Your task to perform on an android device: Go to calendar. Show me events next week Image 0: 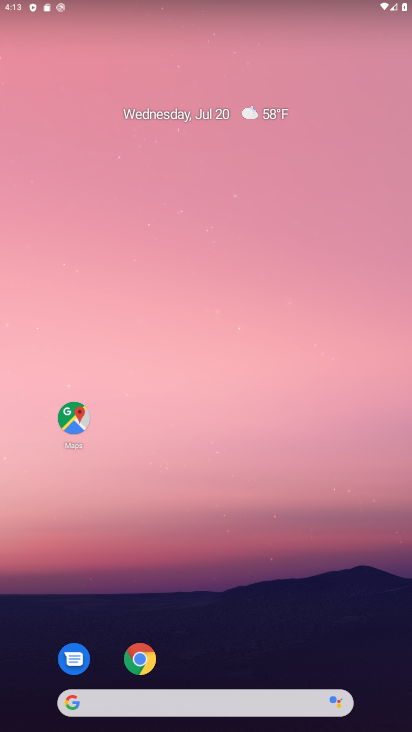
Step 0: drag from (272, 723) to (334, 190)
Your task to perform on an android device: Go to calendar. Show me events next week Image 1: 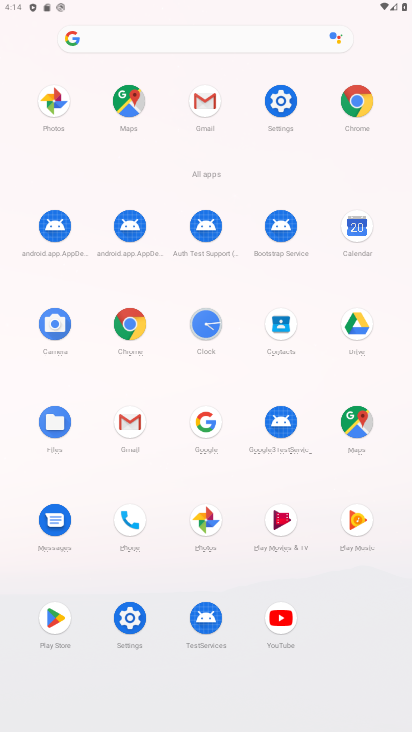
Step 1: click (366, 226)
Your task to perform on an android device: Go to calendar. Show me events next week Image 2: 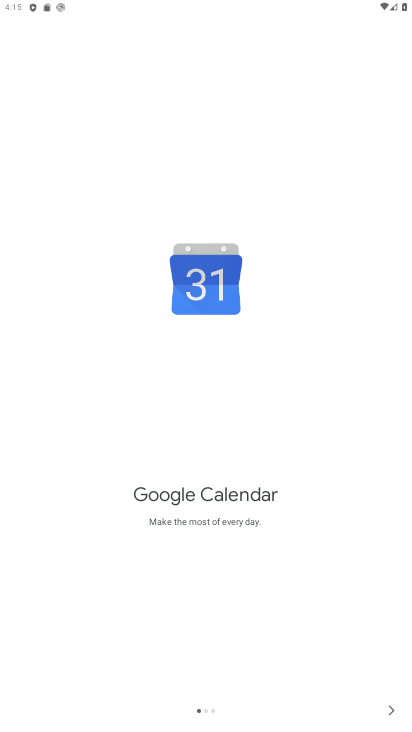
Step 2: click (395, 709)
Your task to perform on an android device: Go to calendar. Show me events next week Image 3: 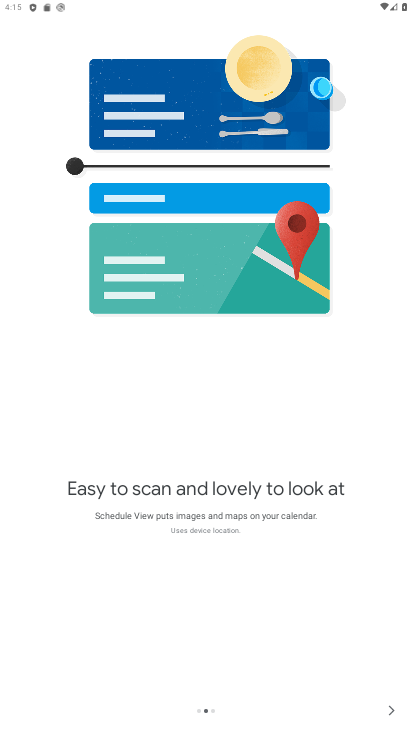
Step 3: click (395, 709)
Your task to perform on an android device: Go to calendar. Show me events next week Image 4: 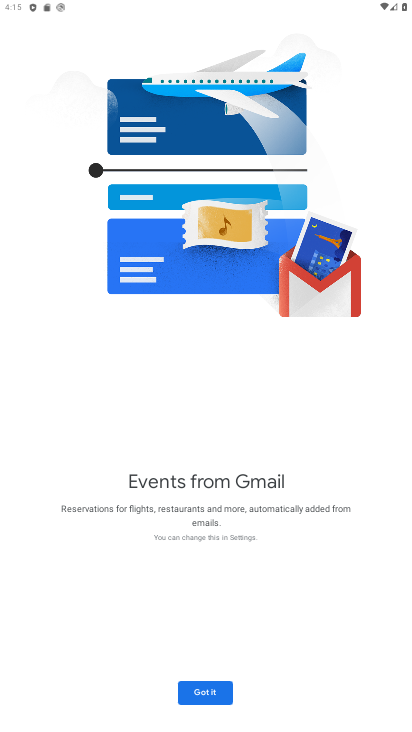
Step 4: click (219, 692)
Your task to perform on an android device: Go to calendar. Show me events next week Image 5: 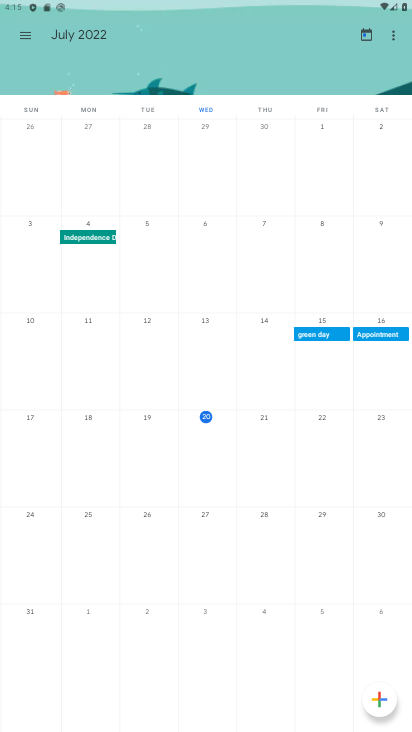
Step 5: drag from (314, 252) to (8, 287)
Your task to perform on an android device: Go to calendar. Show me events next week Image 6: 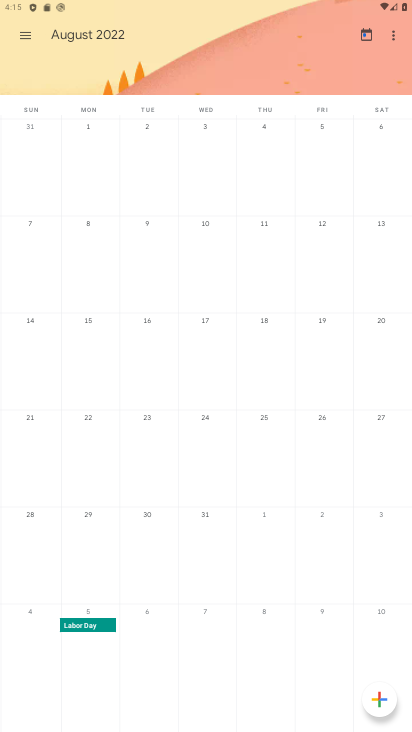
Step 6: drag from (57, 284) to (405, 436)
Your task to perform on an android device: Go to calendar. Show me events next week Image 7: 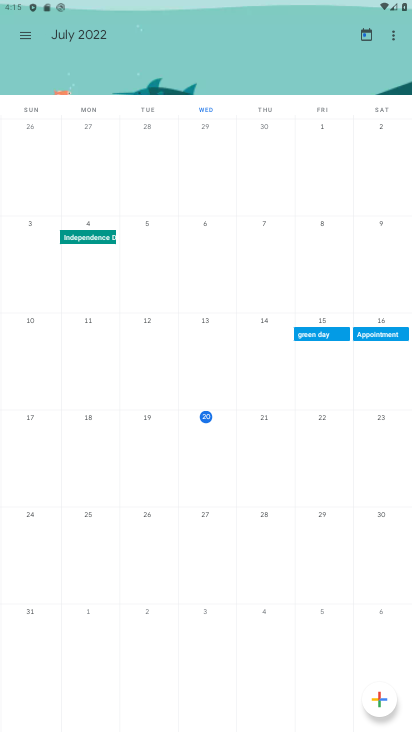
Step 7: click (198, 522)
Your task to perform on an android device: Go to calendar. Show me events next week Image 8: 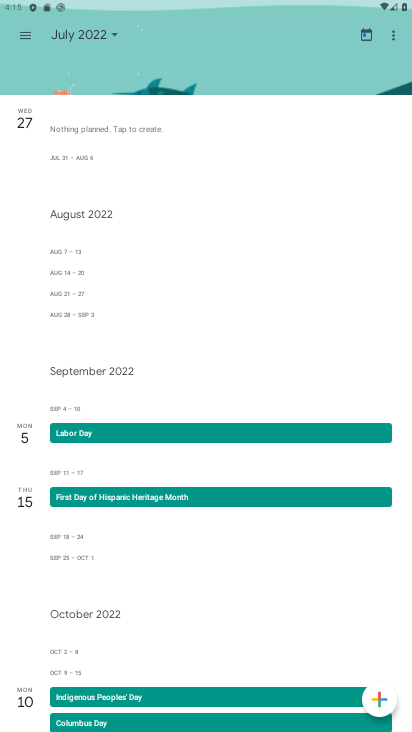
Step 8: task complete